Your task to perform on an android device: Do I have any events tomorrow? Image 0: 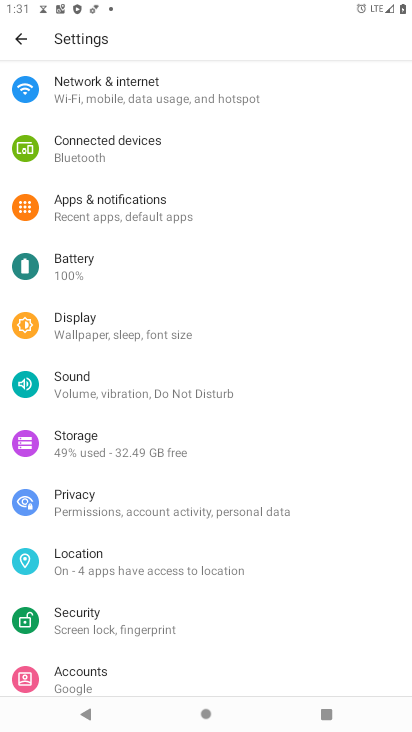
Step 0: press home button
Your task to perform on an android device: Do I have any events tomorrow? Image 1: 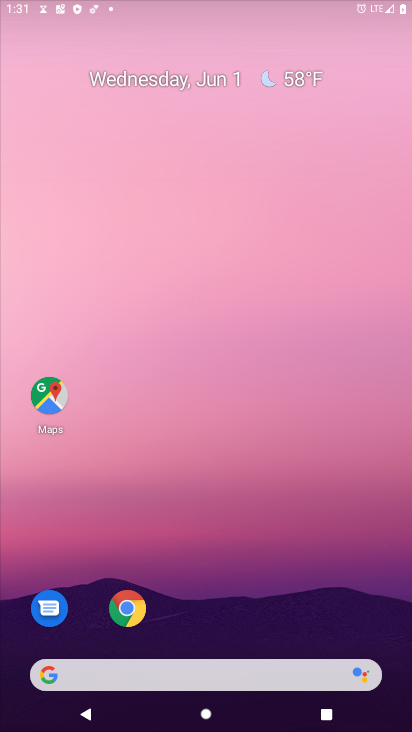
Step 1: drag from (154, 535) to (233, 96)
Your task to perform on an android device: Do I have any events tomorrow? Image 2: 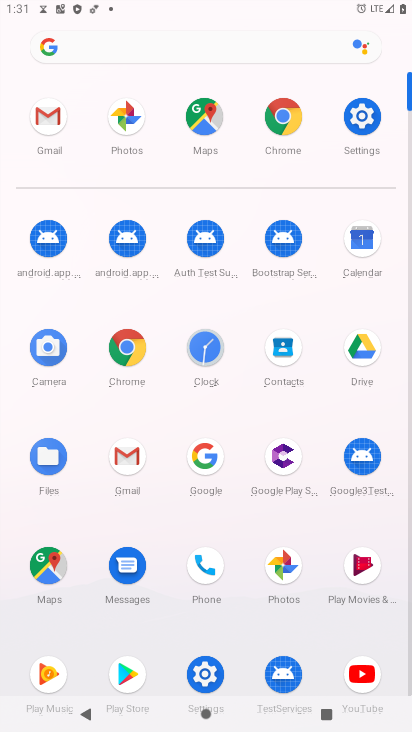
Step 2: click (369, 240)
Your task to perform on an android device: Do I have any events tomorrow? Image 3: 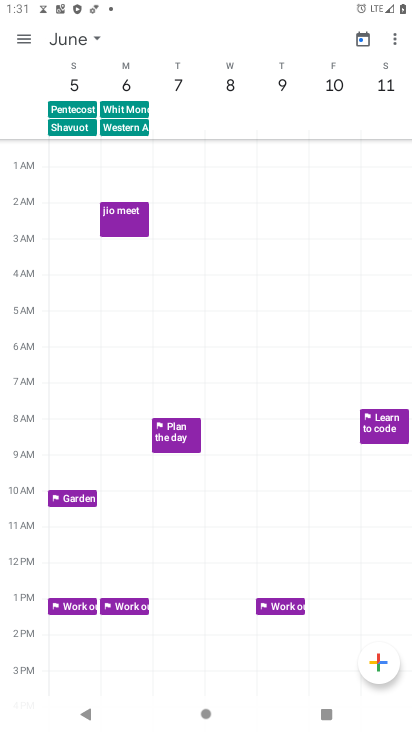
Step 3: click (35, 29)
Your task to perform on an android device: Do I have any events tomorrow? Image 4: 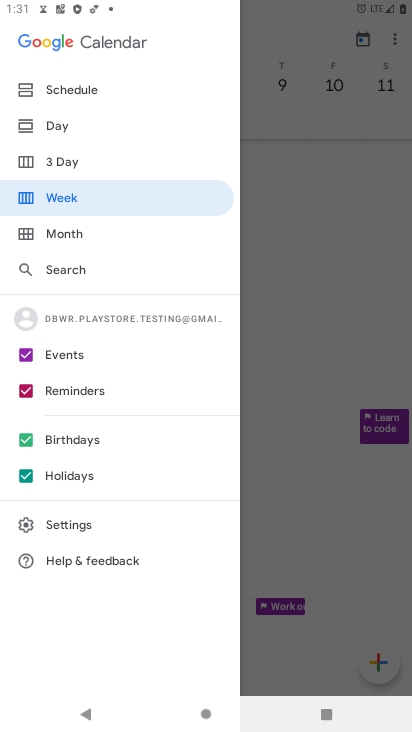
Step 4: click (99, 220)
Your task to perform on an android device: Do I have any events tomorrow? Image 5: 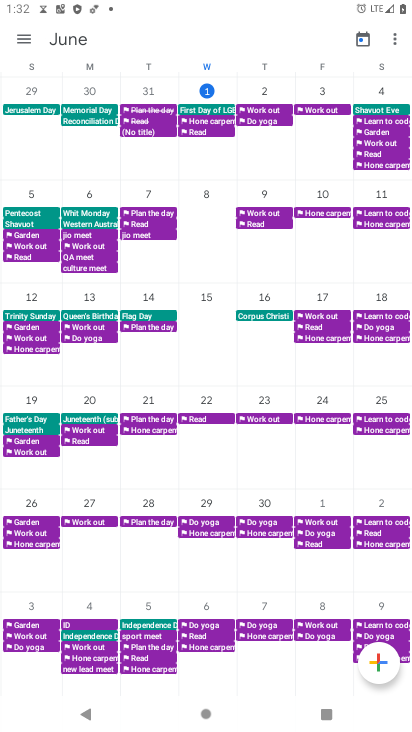
Step 5: click (277, 108)
Your task to perform on an android device: Do I have any events tomorrow? Image 6: 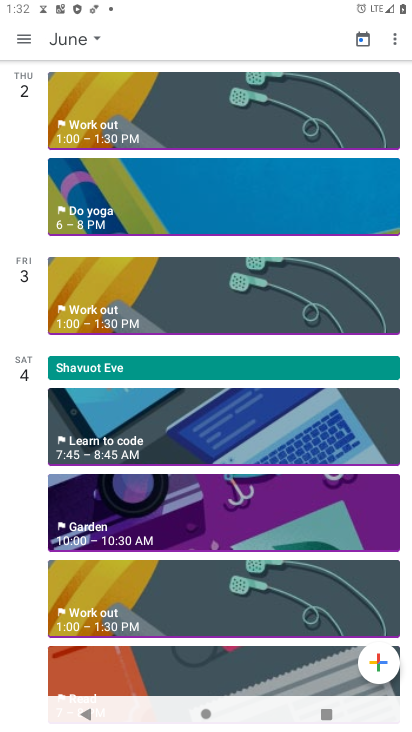
Step 6: task complete